Your task to perform on an android device: turn on priority inbox in the gmail app Image 0: 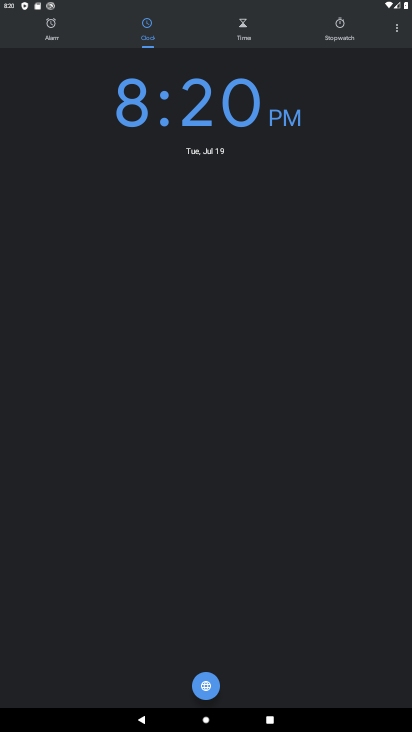
Step 0: press home button
Your task to perform on an android device: turn on priority inbox in the gmail app Image 1: 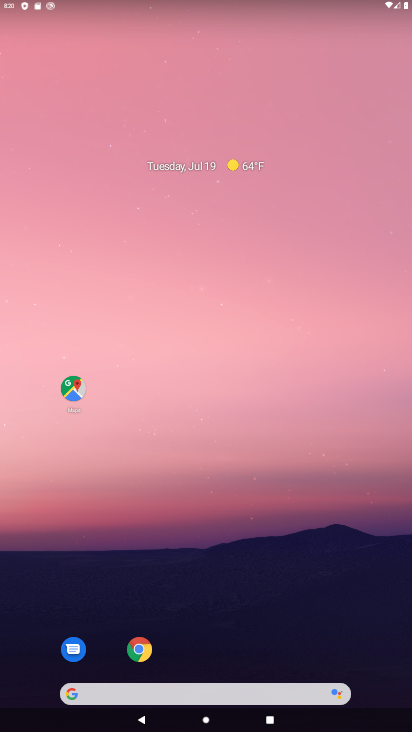
Step 1: drag from (222, 635) to (222, 71)
Your task to perform on an android device: turn on priority inbox in the gmail app Image 2: 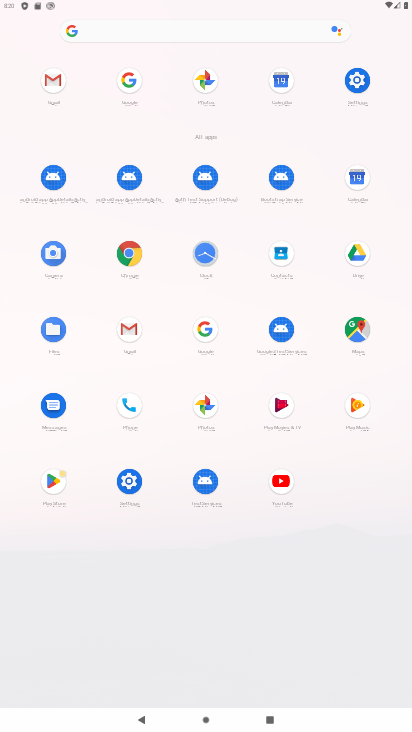
Step 2: click (126, 349)
Your task to perform on an android device: turn on priority inbox in the gmail app Image 3: 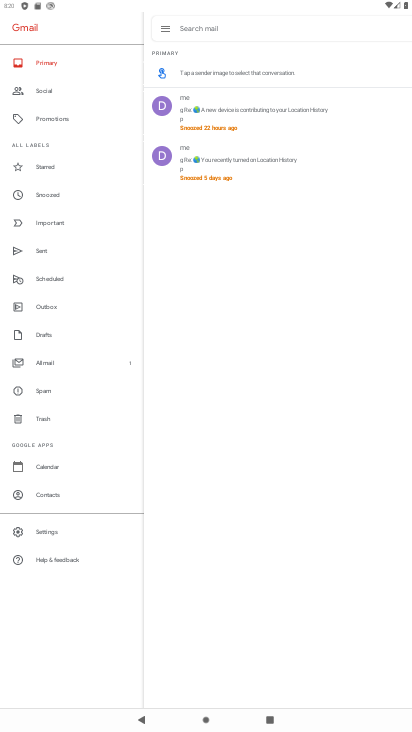
Step 3: click (57, 534)
Your task to perform on an android device: turn on priority inbox in the gmail app Image 4: 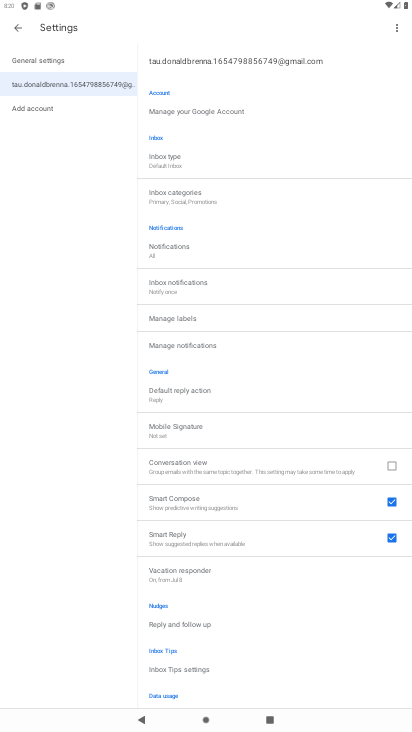
Step 4: click (200, 156)
Your task to perform on an android device: turn on priority inbox in the gmail app Image 5: 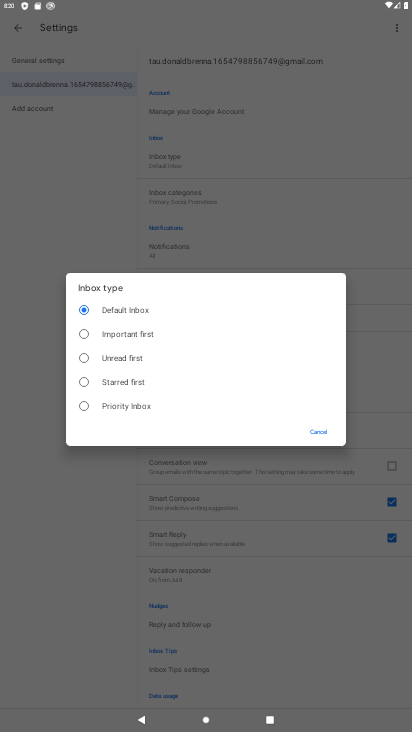
Step 5: click (132, 410)
Your task to perform on an android device: turn on priority inbox in the gmail app Image 6: 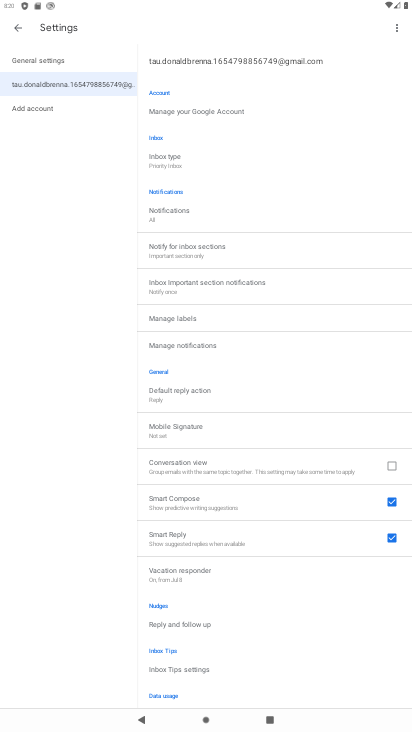
Step 6: task complete